Your task to perform on an android device: set the stopwatch Image 0: 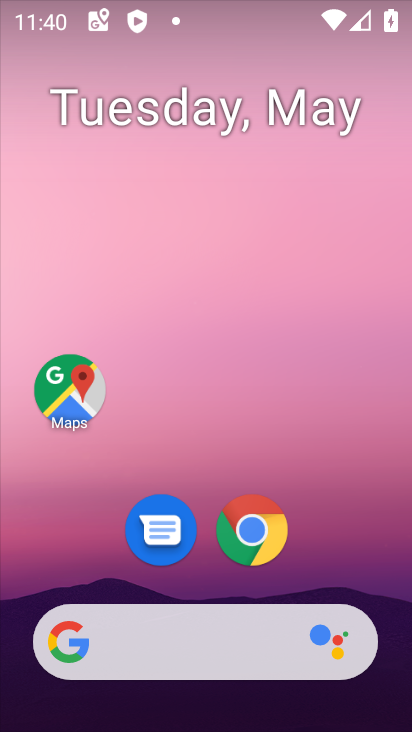
Step 0: drag from (258, 603) to (271, 213)
Your task to perform on an android device: set the stopwatch Image 1: 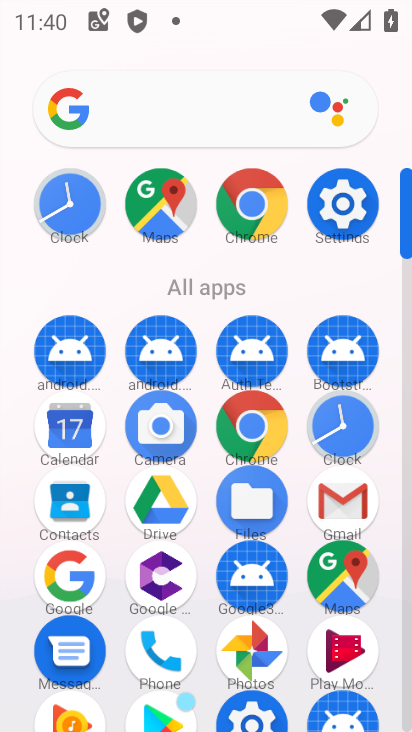
Step 1: click (337, 413)
Your task to perform on an android device: set the stopwatch Image 2: 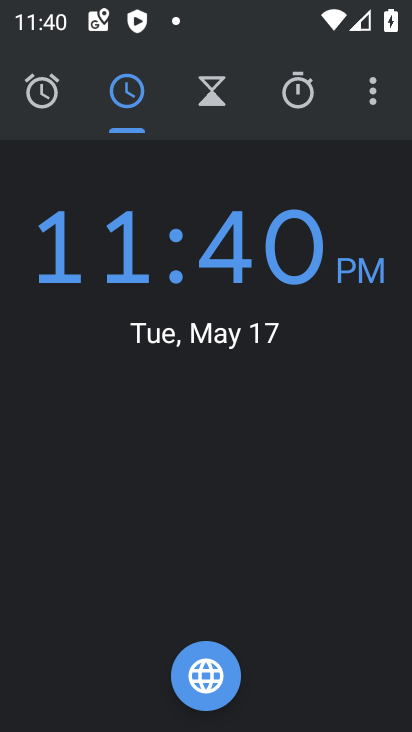
Step 2: click (304, 96)
Your task to perform on an android device: set the stopwatch Image 3: 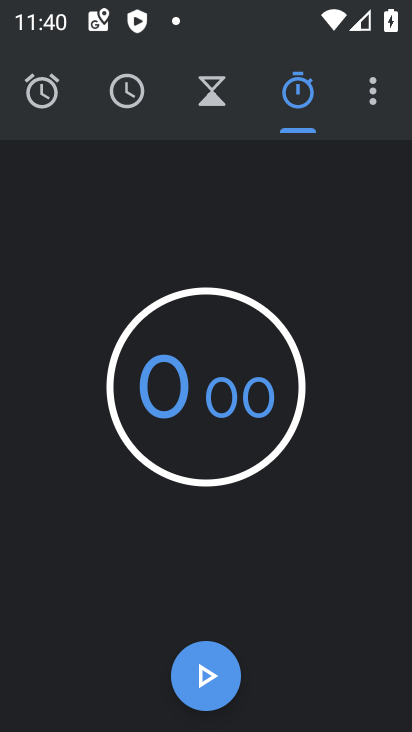
Step 3: click (222, 668)
Your task to perform on an android device: set the stopwatch Image 4: 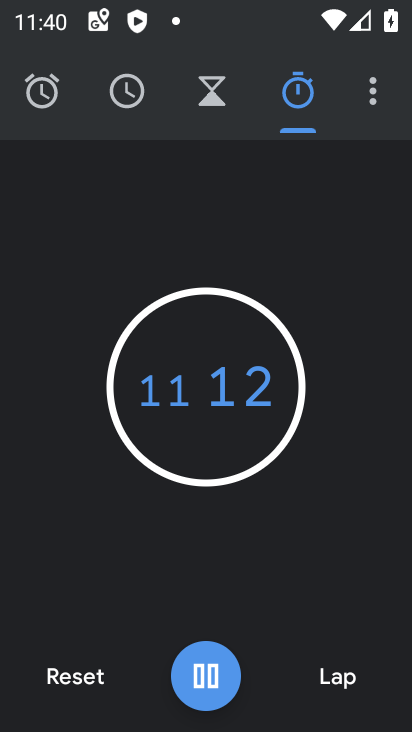
Step 4: task complete